Your task to perform on an android device: Open Maps and search for coffee Image 0: 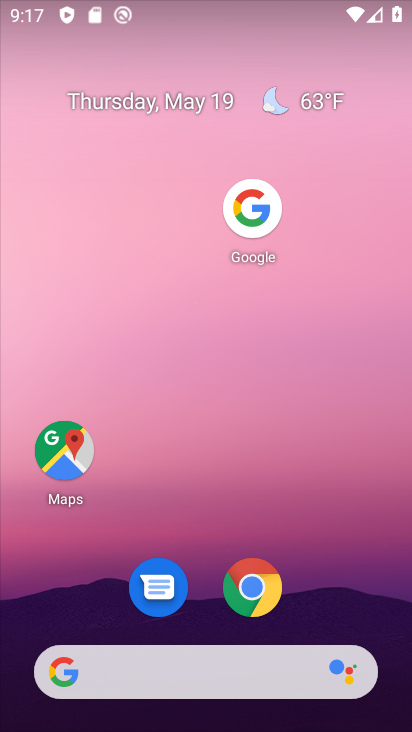
Step 0: drag from (235, 647) to (192, 120)
Your task to perform on an android device: Open Maps and search for coffee Image 1: 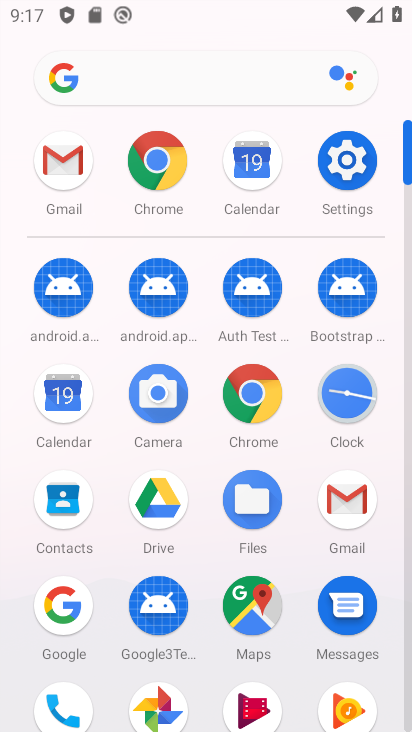
Step 1: click (268, 589)
Your task to perform on an android device: Open Maps and search for coffee Image 2: 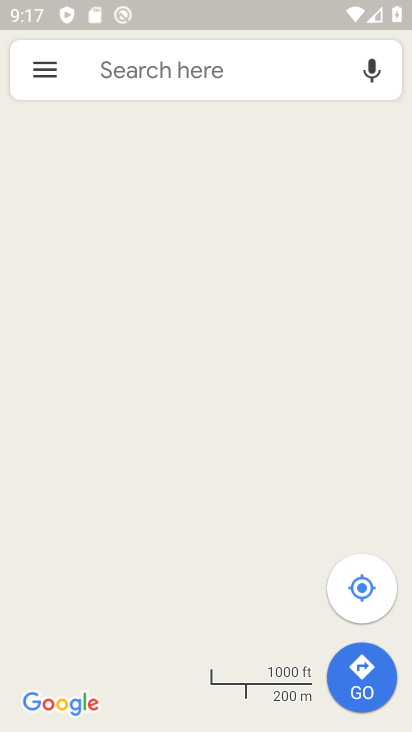
Step 2: click (185, 89)
Your task to perform on an android device: Open Maps and search for coffee Image 3: 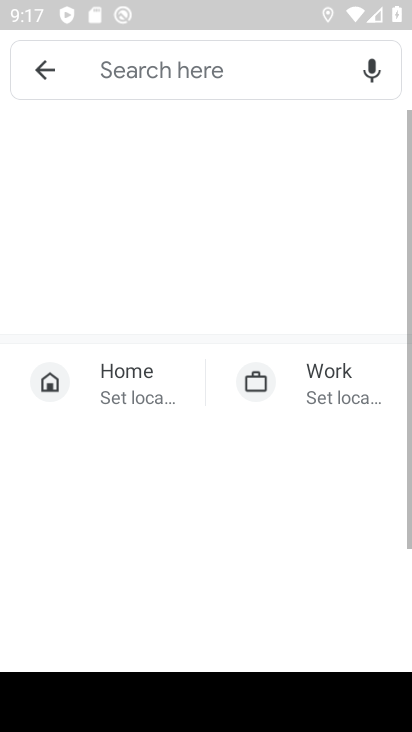
Step 3: click (140, 272)
Your task to perform on an android device: Open Maps and search for coffee Image 4: 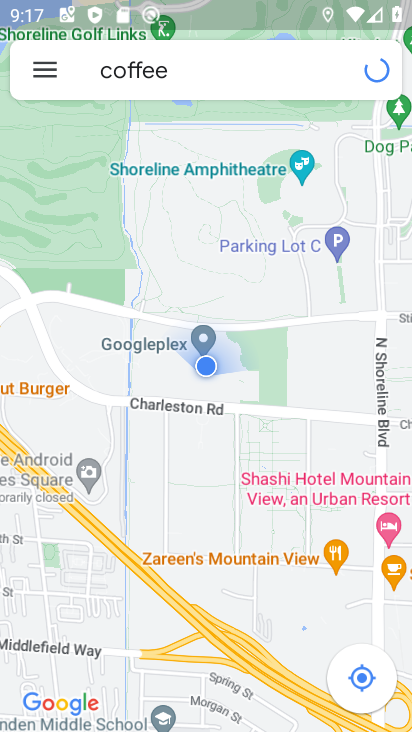
Step 4: task complete